Your task to perform on an android device: show emergency info Image 0: 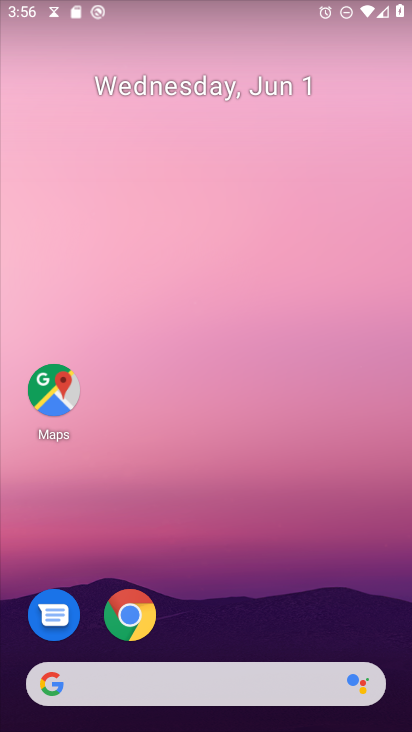
Step 0: drag from (240, 626) to (308, 0)
Your task to perform on an android device: show emergency info Image 1: 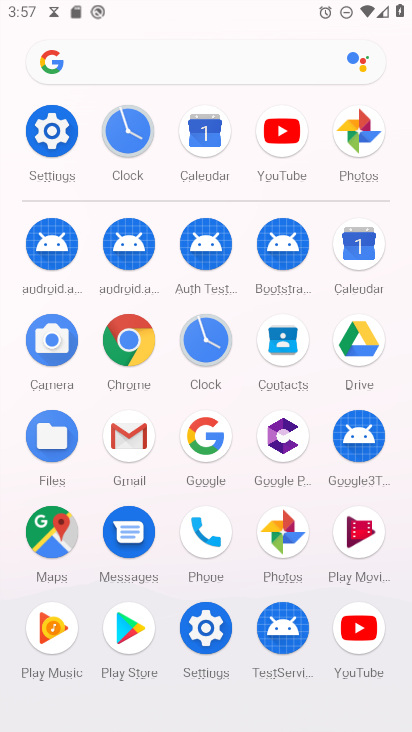
Step 1: click (47, 119)
Your task to perform on an android device: show emergency info Image 2: 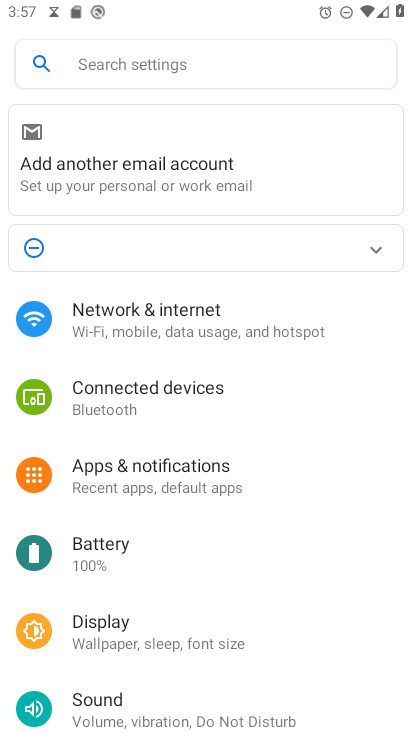
Step 2: drag from (191, 628) to (237, 180)
Your task to perform on an android device: show emergency info Image 3: 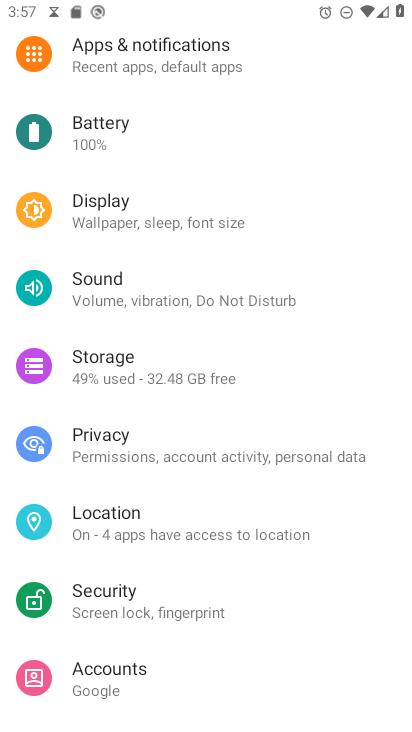
Step 3: drag from (200, 639) to (236, 208)
Your task to perform on an android device: show emergency info Image 4: 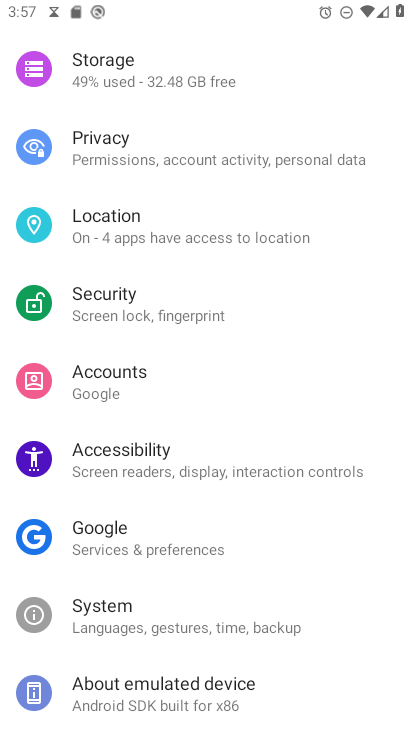
Step 4: click (175, 690)
Your task to perform on an android device: show emergency info Image 5: 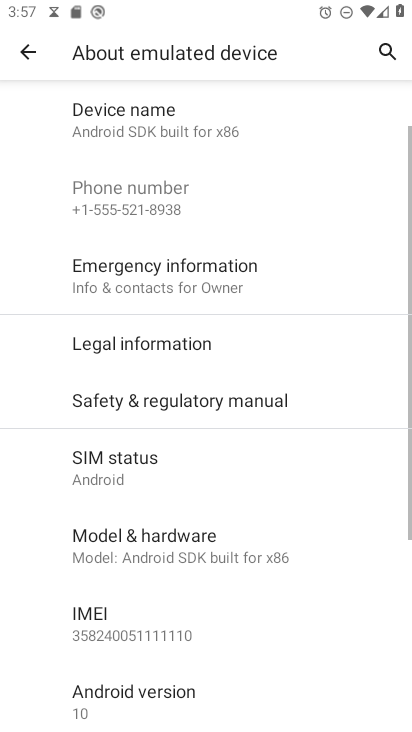
Step 5: click (178, 282)
Your task to perform on an android device: show emergency info Image 6: 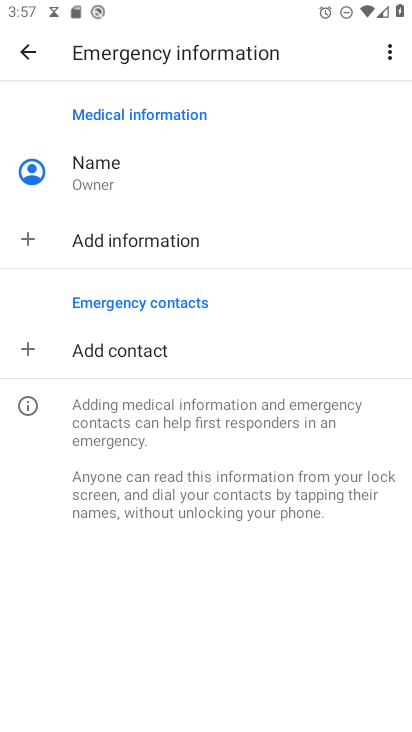
Step 6: task complete